Your task to perform on an android device: turn on location history Image 0: 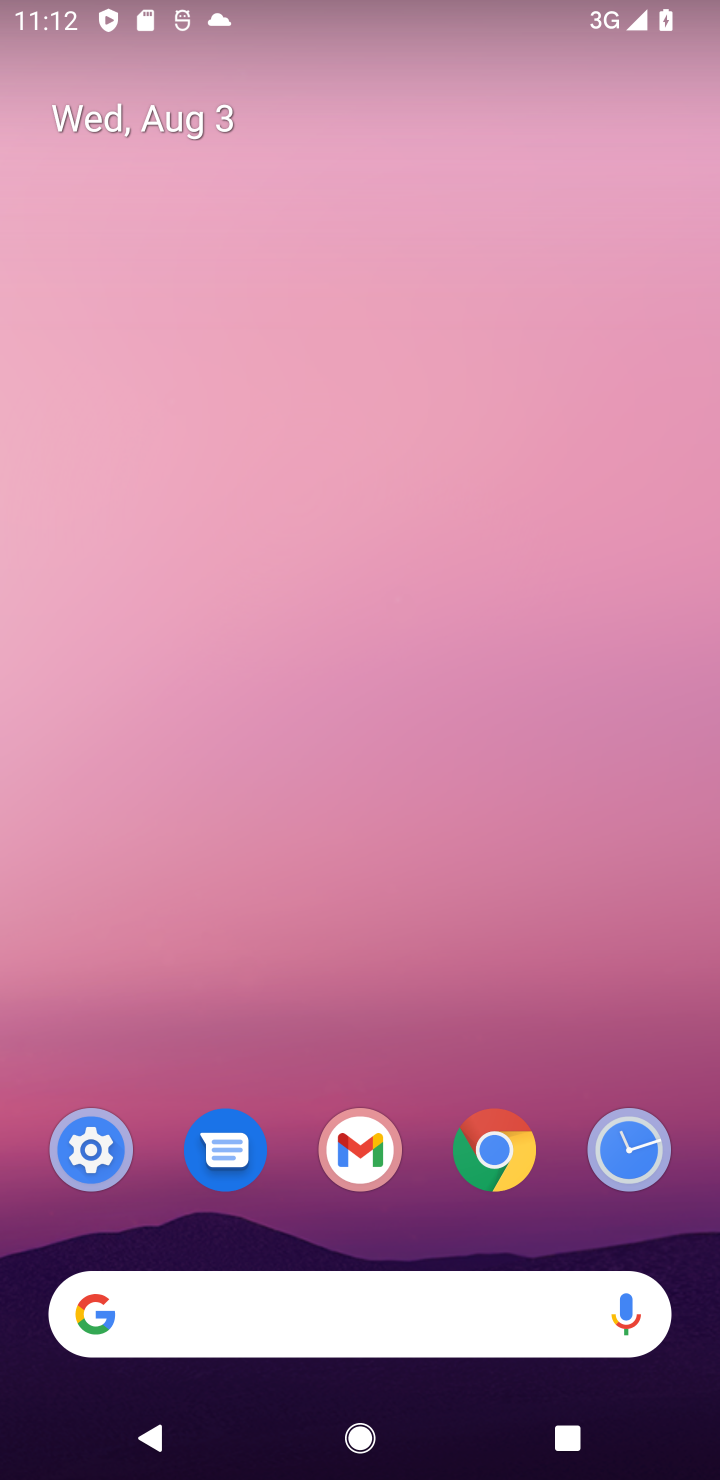
Step 0: press home button
Your task to perform on an android device: turn on location history Image 1: 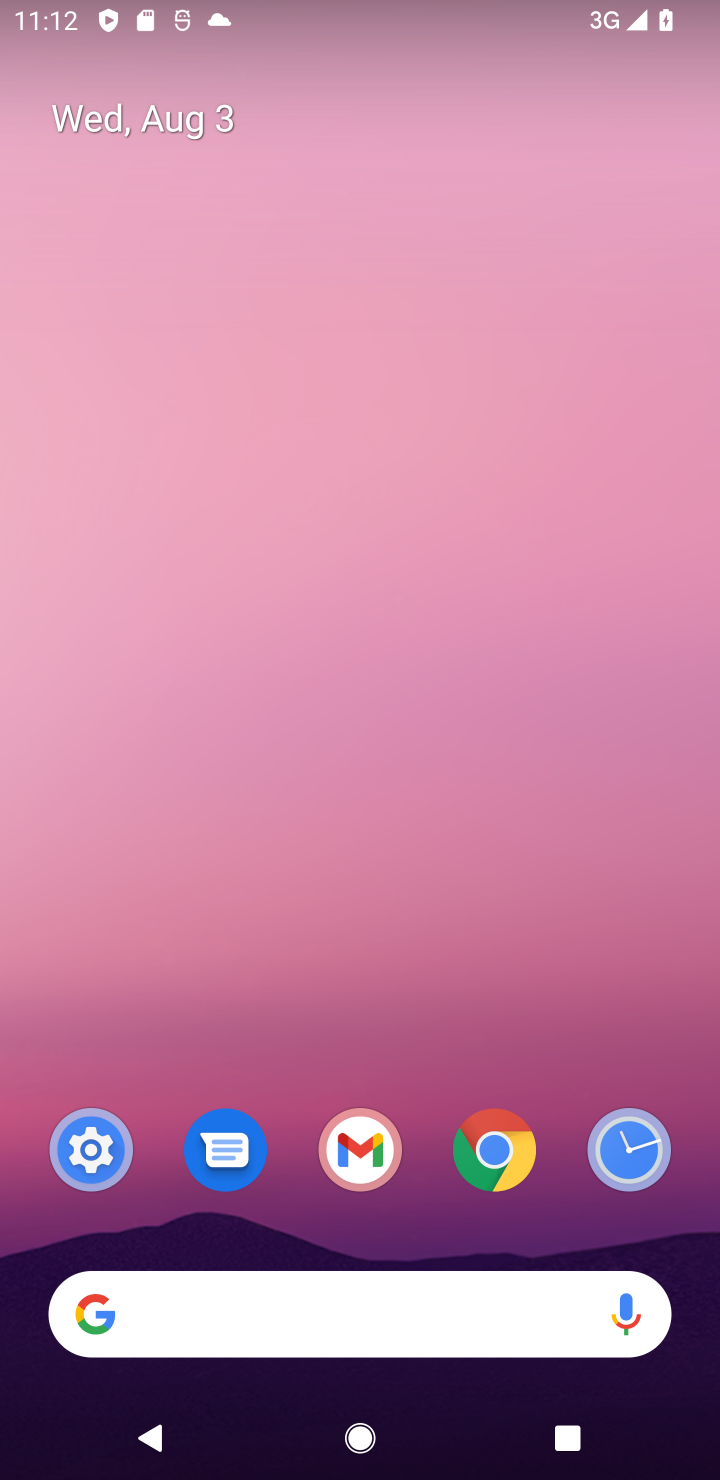
Step 1: drag from (570, 1116) to (583, 445)
Your task to perform on an android device: turn on location history Image 2: 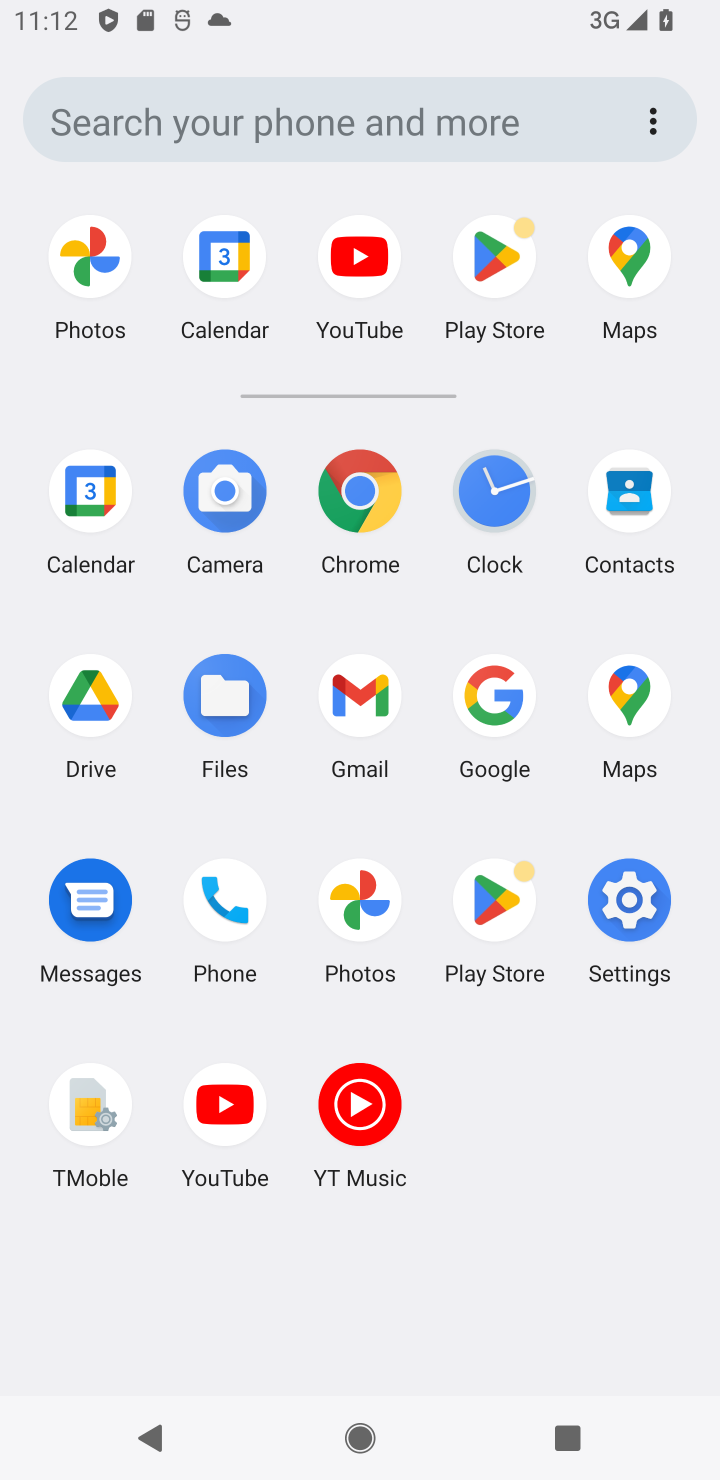
Step 2: click (638, 919)
Your task to perform on an android device: turn on location history Image 3: 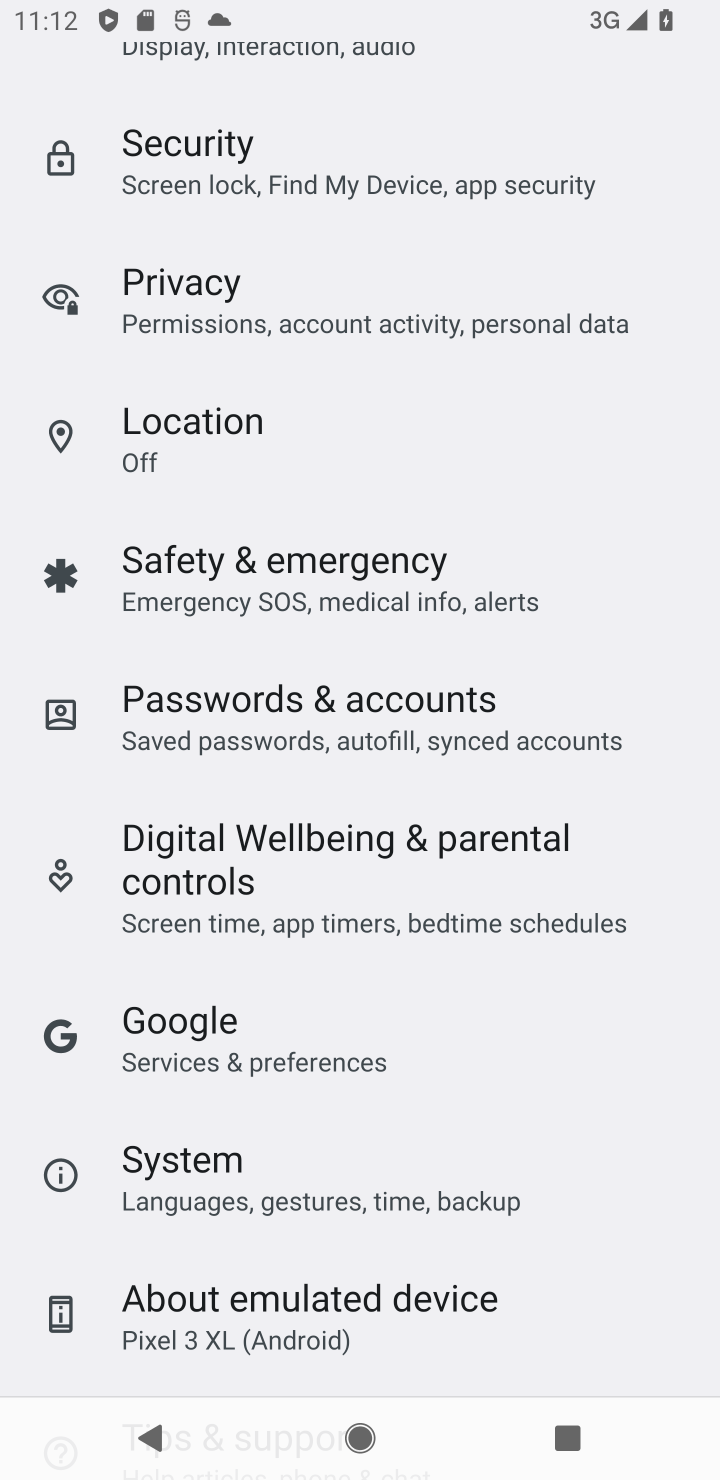
Step 3: drag from (650, 839) to (659, 949)
Your task to perform on an android device: turn on location history Image 4: 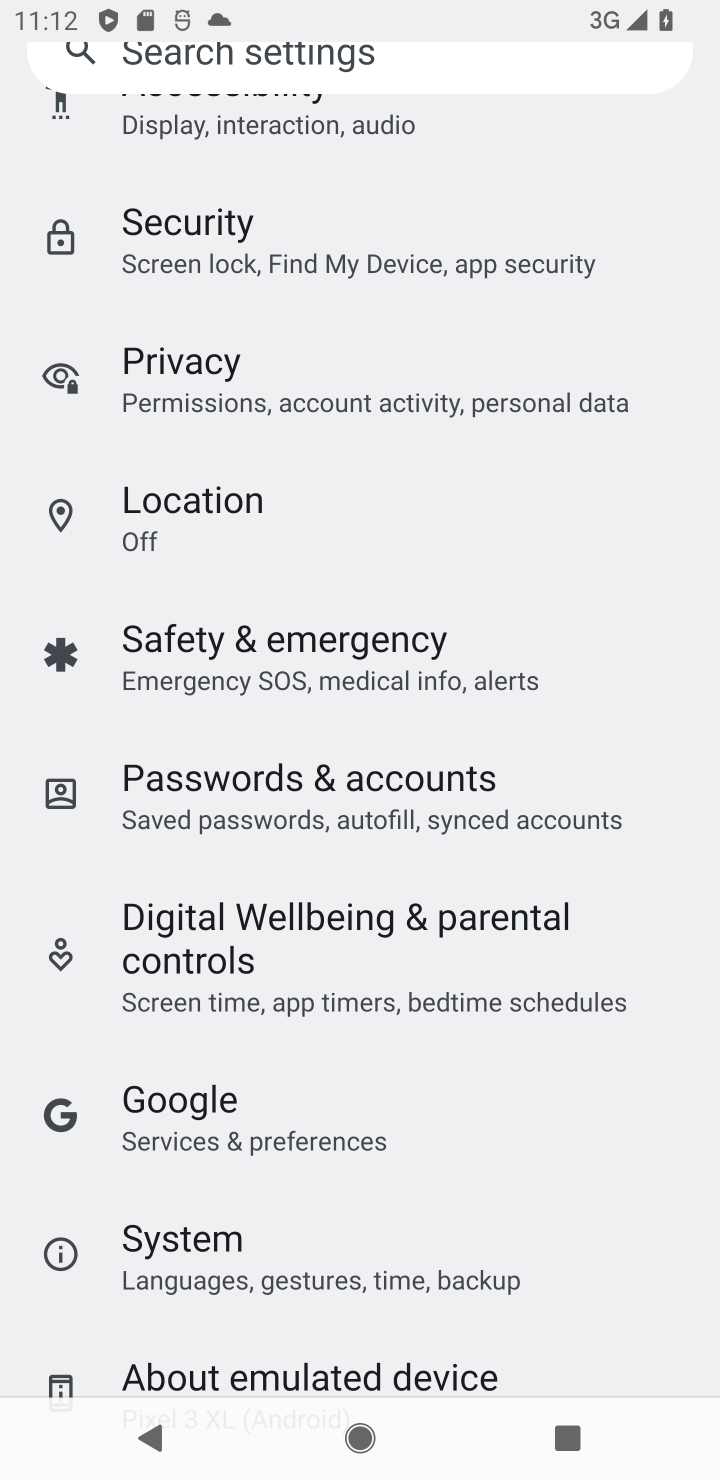
Step 4: drag from (672, 838) to (672, 938)
Your task to perform on an android device: turn on location history Image 5: 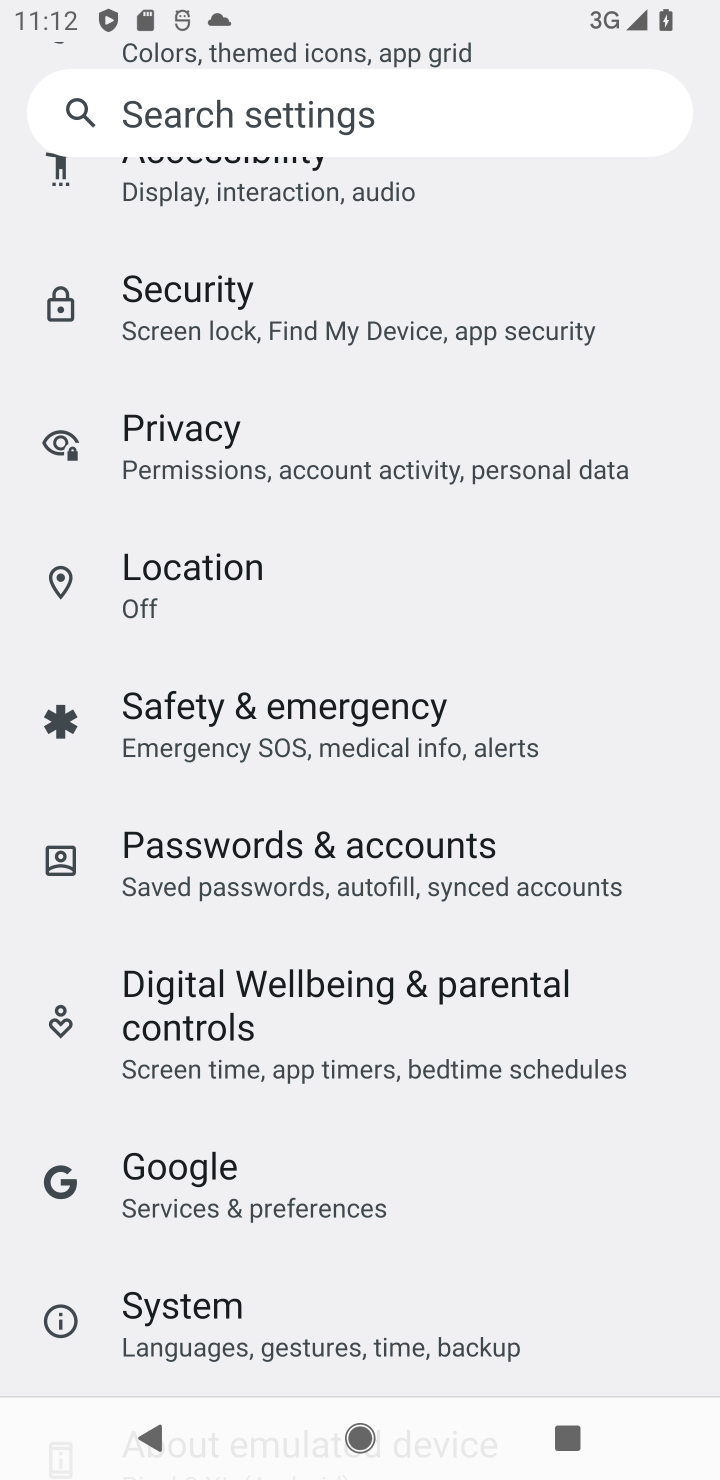
Step 5: drag from (658, 796) to (658, 922)
Your task to perform on an android device: turn on location history Image 6: 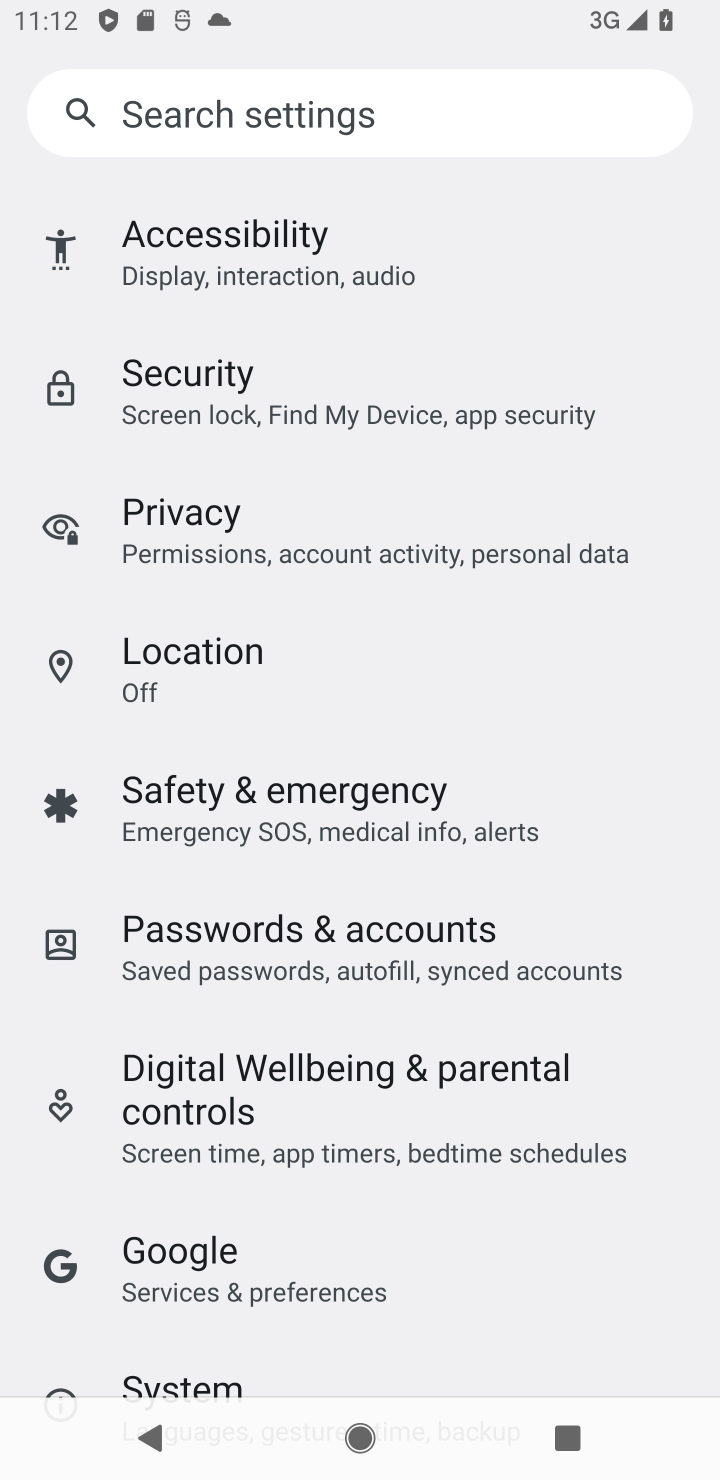
Step 6: drag from (649, 822) to (651, 955)
Your task to perform on an android device: turn on location history Image 7: 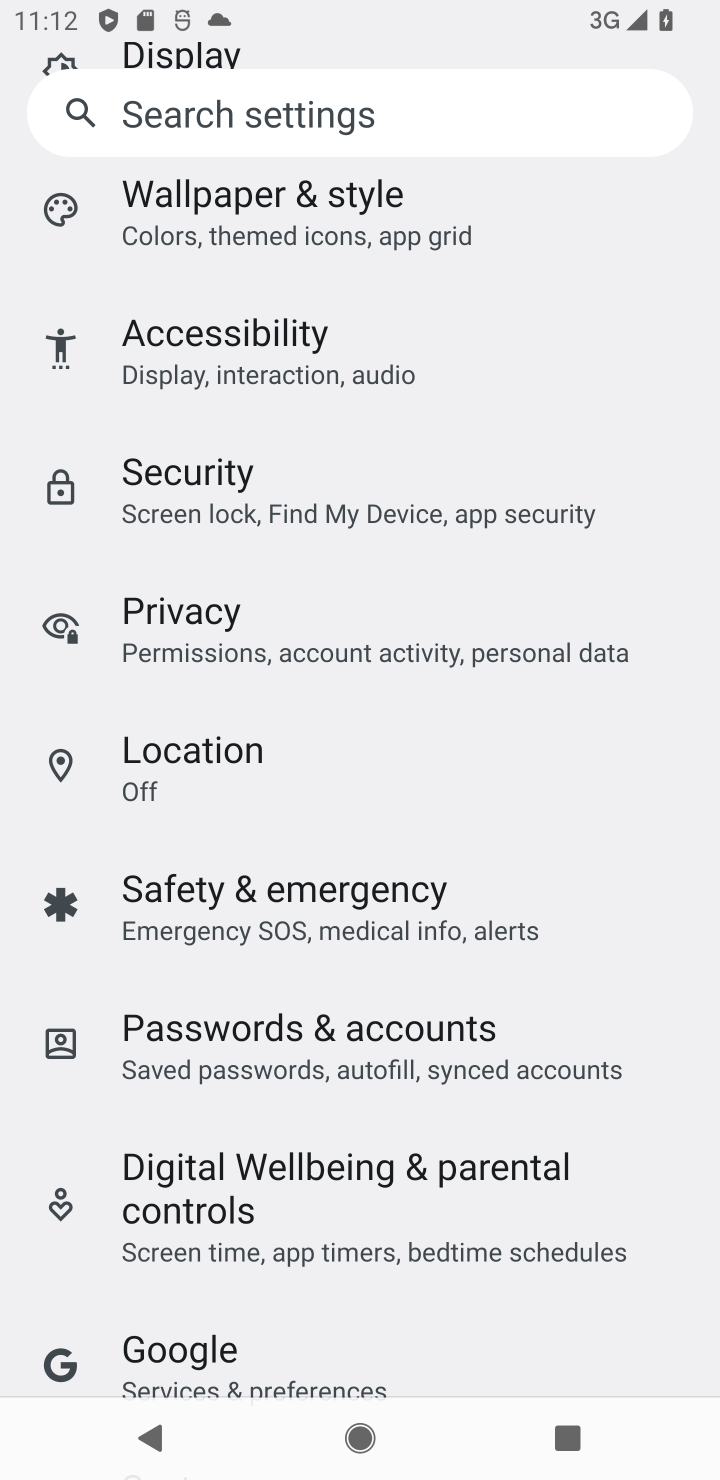
Step 7: drag from (639, 807) to (635, 978)
Your task to perform on an android device: turn on location history Image 8: 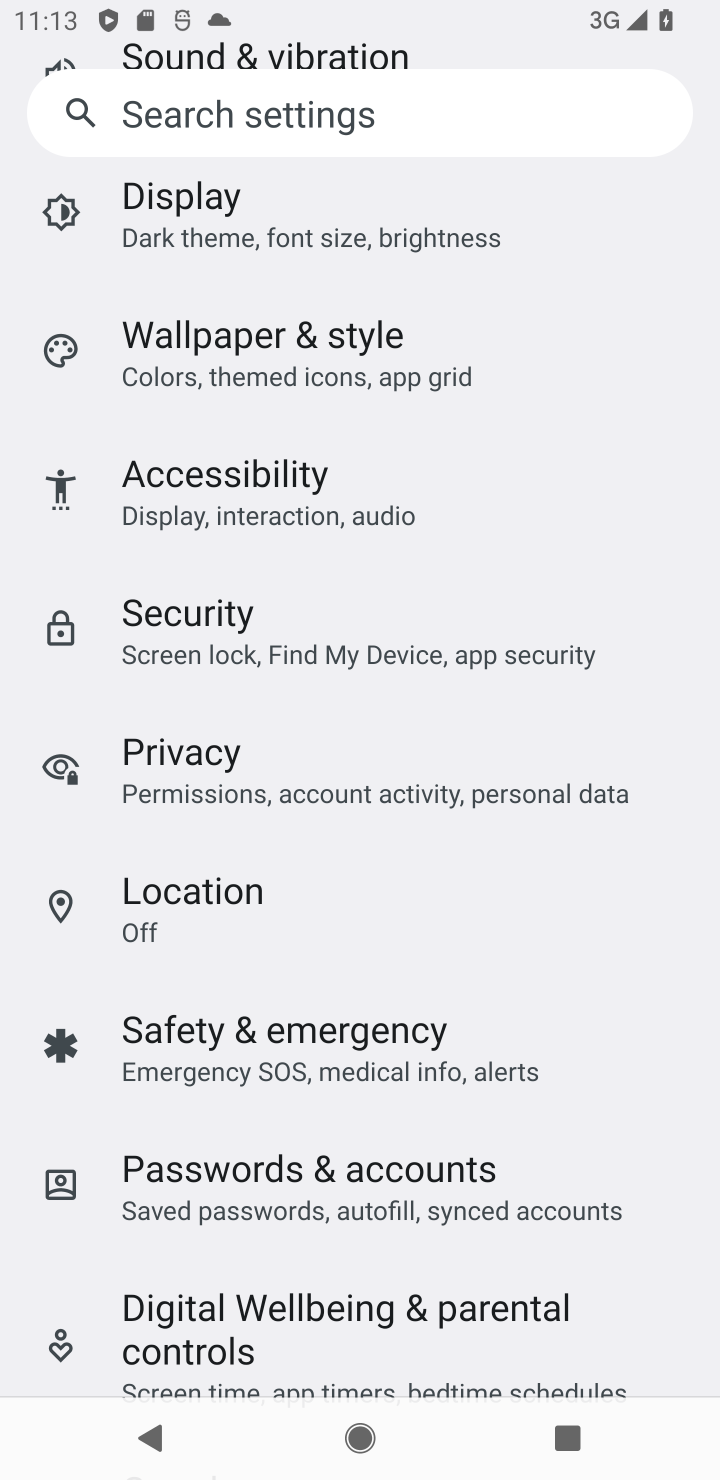
Step 8: click (564, 894)
Your task to perform on an android device: turn on location history Image 9: 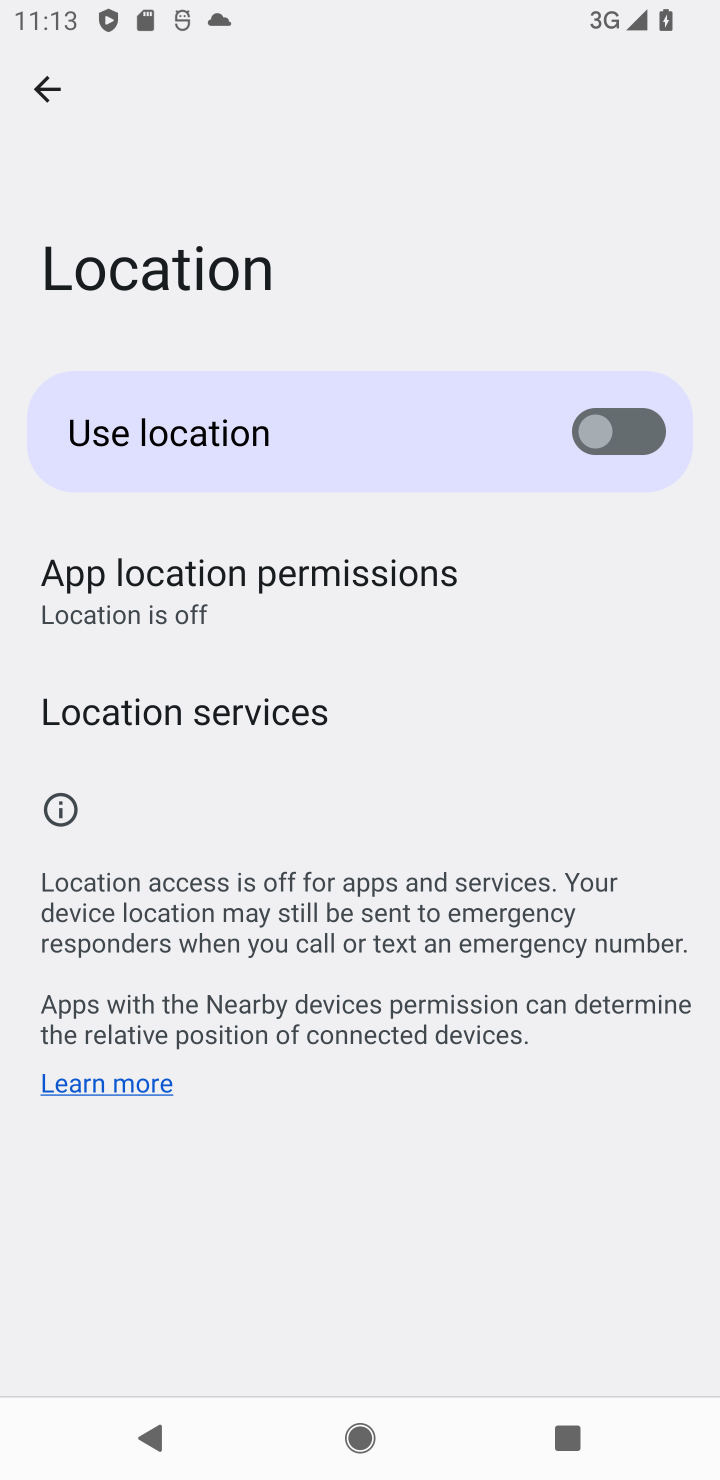
Step 9: click (265, 706)
Your task to perform on an android device: turn on location history Image 10: 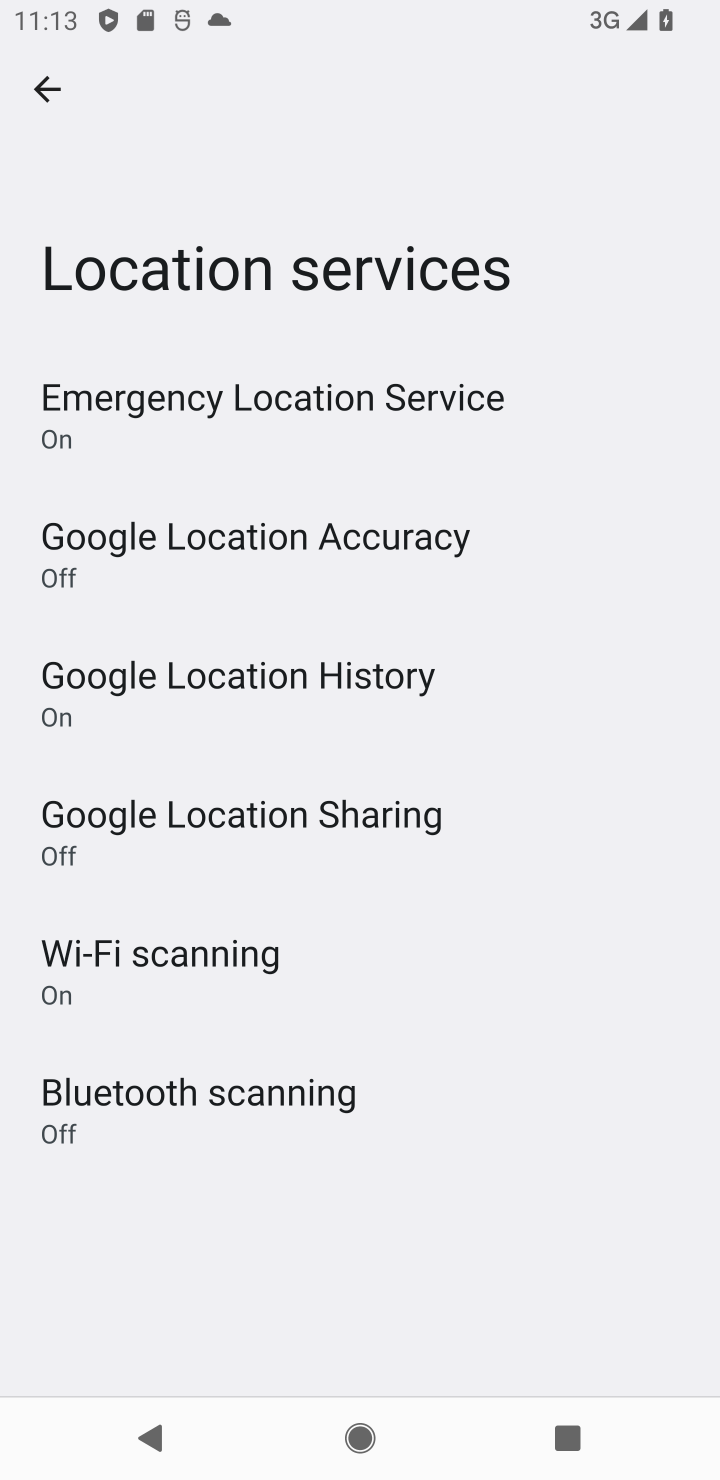
Step 10: task complete